Your task to perform on an android device: change notification settings in the gmail app Image 0: 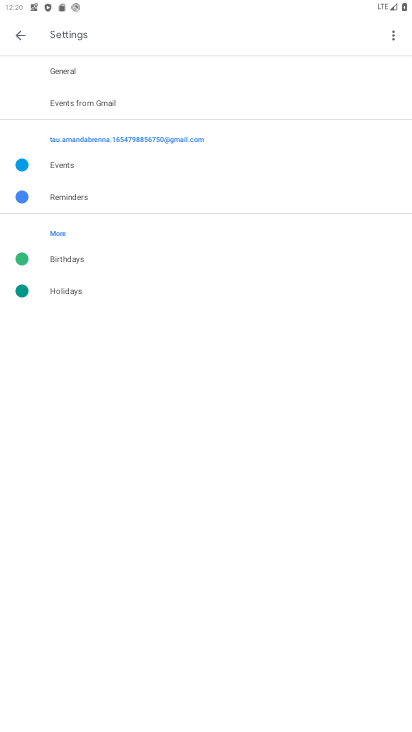
Step 0: press home button
Your task to perform on an android device: change notification settings in the gmail app Image 1: 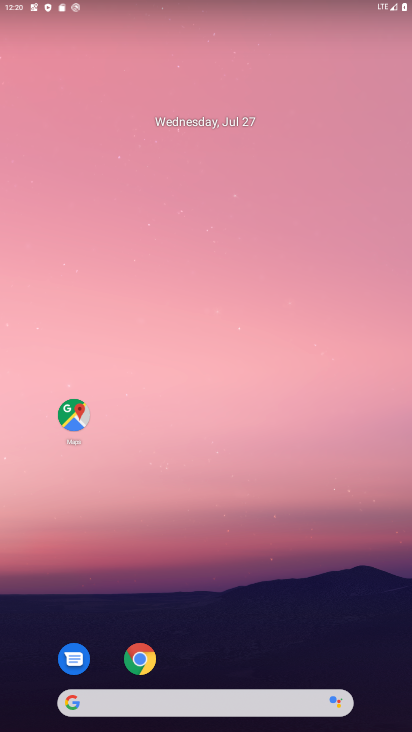
Step 1: drag from (206, 642) to (263, 135)
Your task to perform on an android device: change notification settings in the gmail app Image 2: 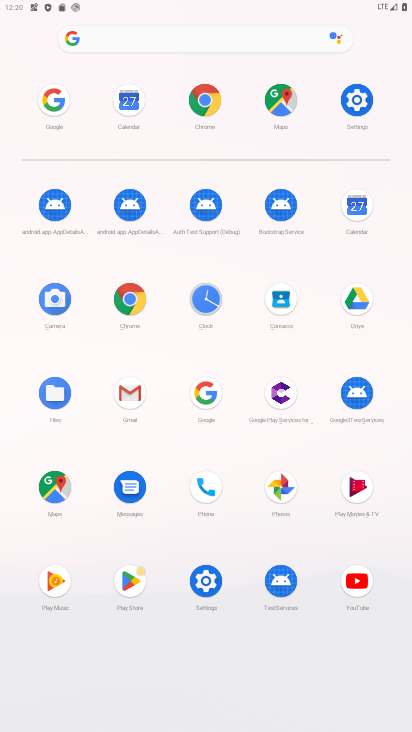
Step 2: click (123, 390)
Your task to perform on an android device: change notification settings in the gmail app Image 3: 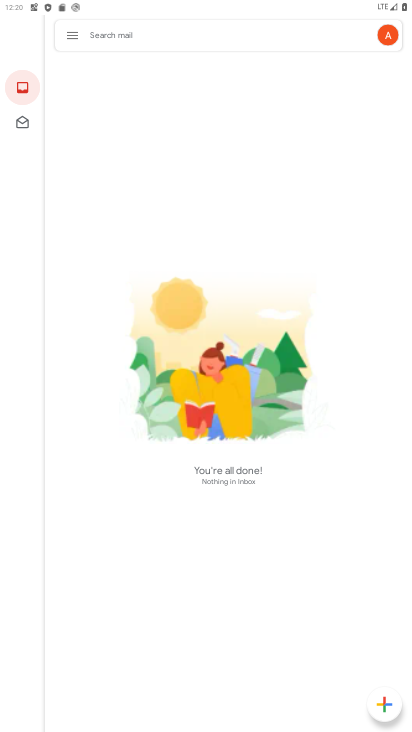
Step 3: click (73, 35)
Your task to perform on an android device: change notification settings in the gmail app Image 4: 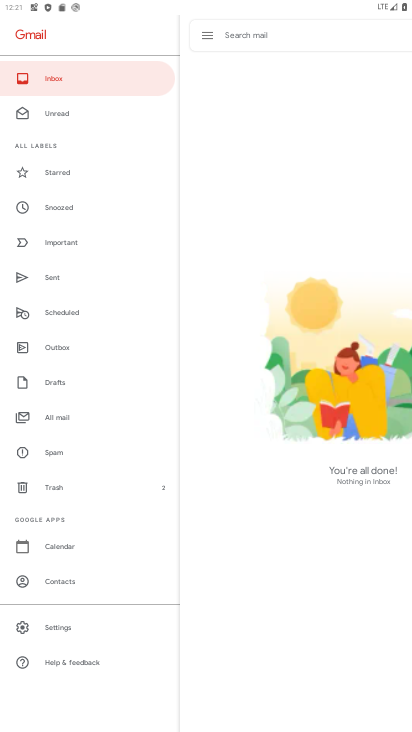
Step 4: click (59, 630)
Your task to perform on an android device: change notification settings in the gmail app Image 5: 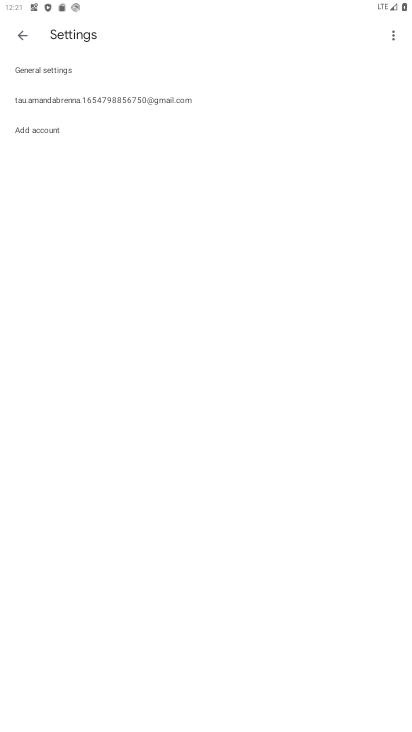
Step 5: click (155, 70)
Your task to perform on an android device: change notification settings in the gmail app Image 6: 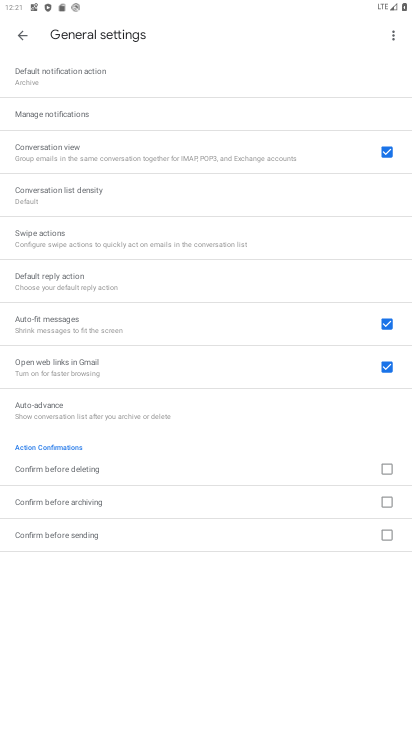
Step 6: click (71, 114)
Your task to perform on an android device: change notification settings in the gmail app Image 7: 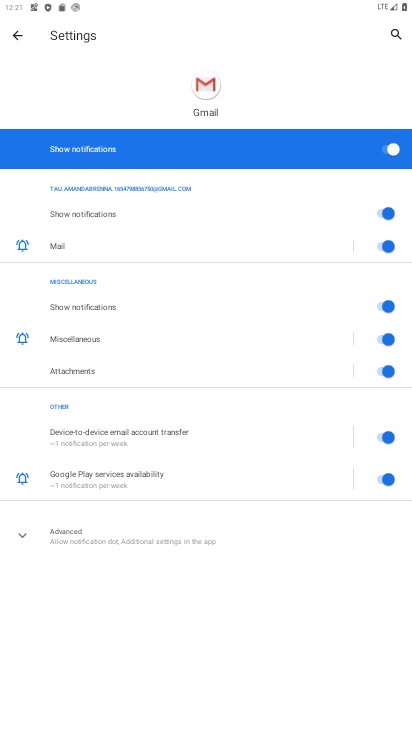
Step 7: task complete